Your task to perform on an android device: open chrome privacy settings Image 0: 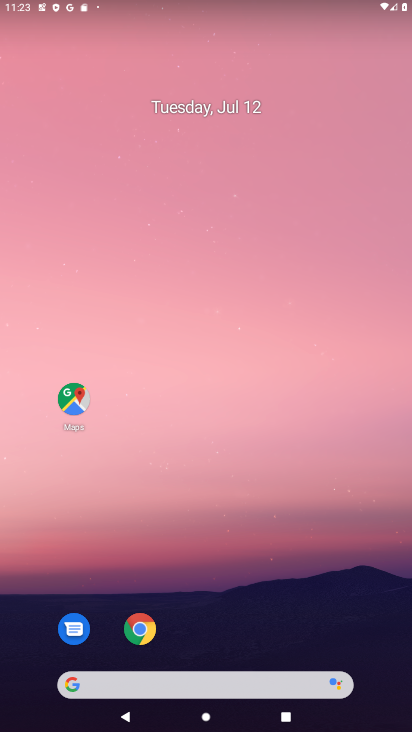
Step 0: click (323, 236)
Your task to perform on an android device: open chrome privacy settings Image 1: 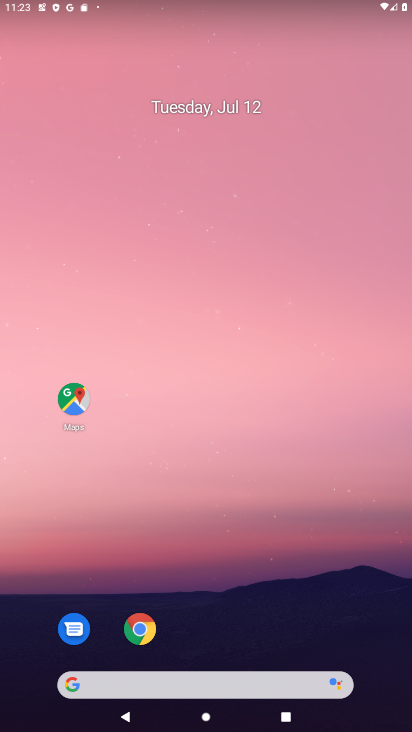
Step 1: click (137, 629)
Your task to perform on an android device: open chrome privacy settings Image 2: 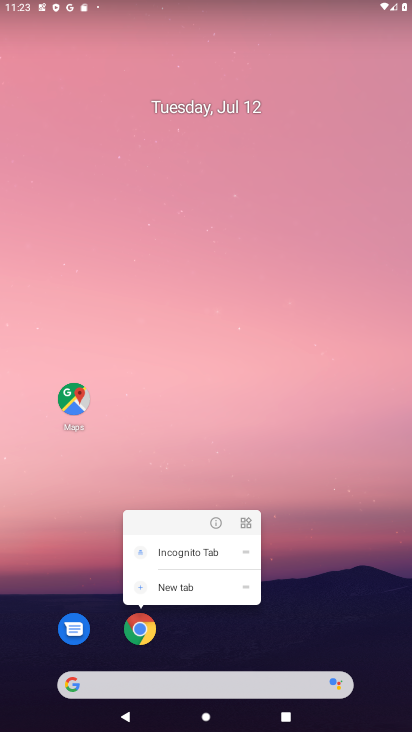
Step 2: click (137, 629)
Your task to perform on an android device: open chrome privacy settings Image 3: 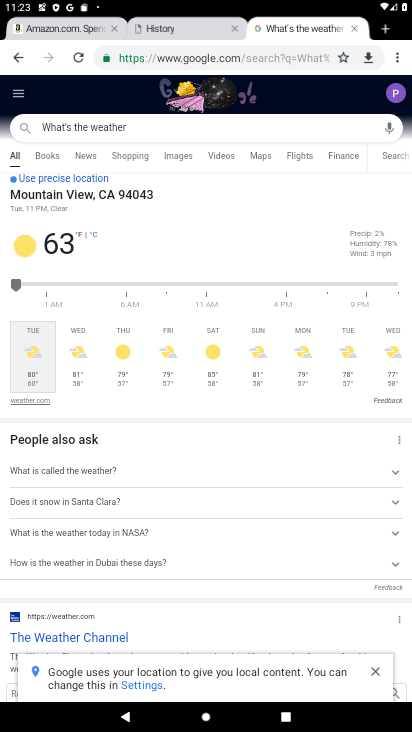
Step 3: click (395, 49)
Your task to perform on an android device: open chrome privacy settings Image 4: 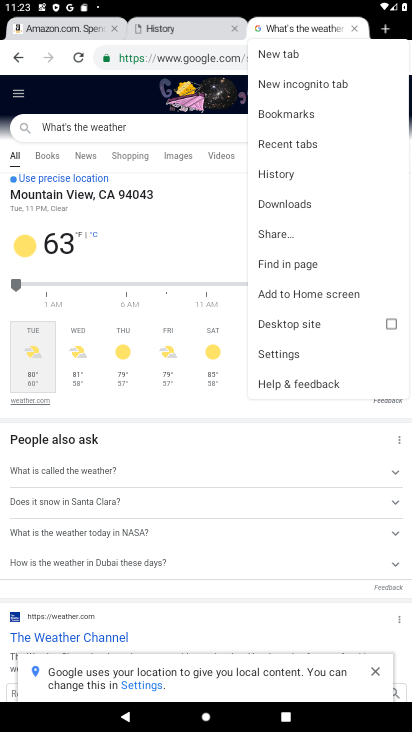
Step 4: click (297, 355)
Your task to perform on an android device: open chrome privacy settings Image 5: 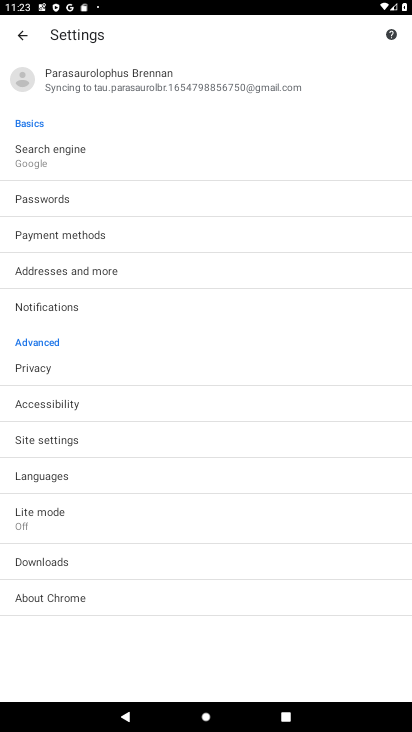
Step 5: click (60, 367)
Your task to perform on an android device: open chrome privacy settings Image 6: 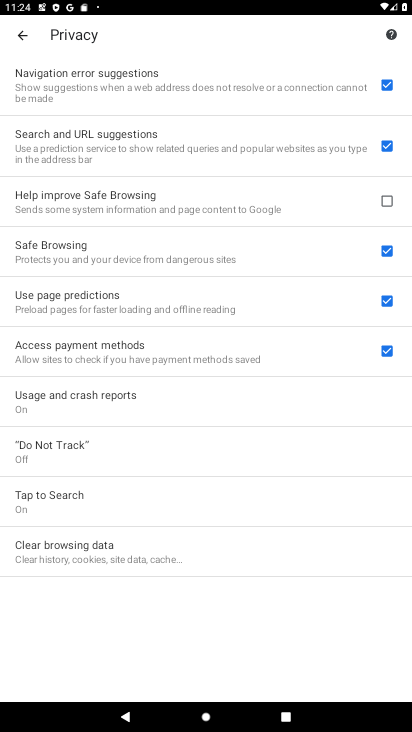
Step 6: task complete